Your task to perform on an android device: Go to sound settings Image 0: 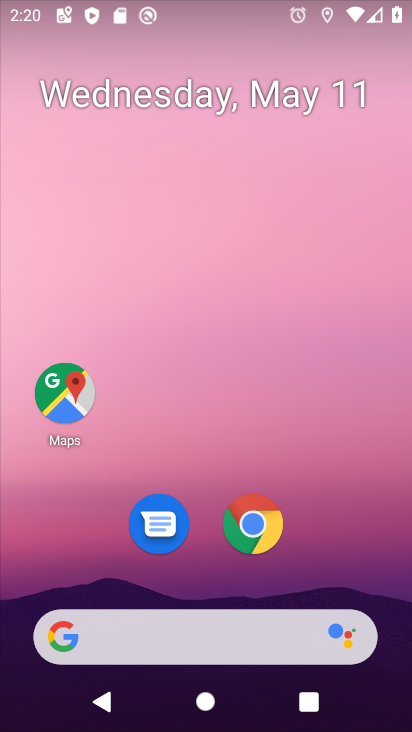
Step 0: drag from (359, 541) to (346, 49)
Your task to perform on an android device: Go to sound settings Image 1: 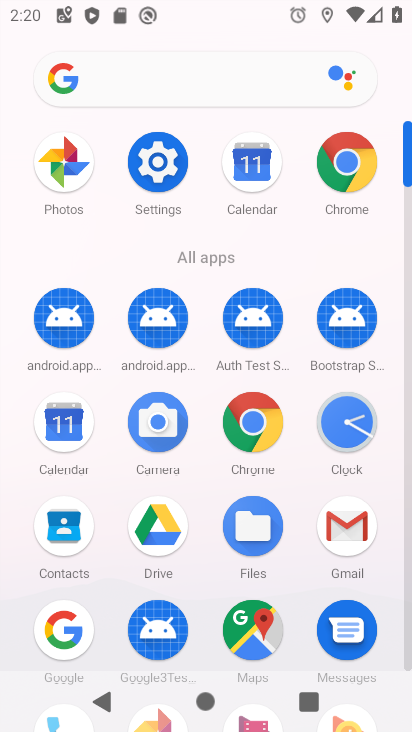
Step 1: click (175, 155)
Your task to perform on an android device: Go to sound settings Image 2: 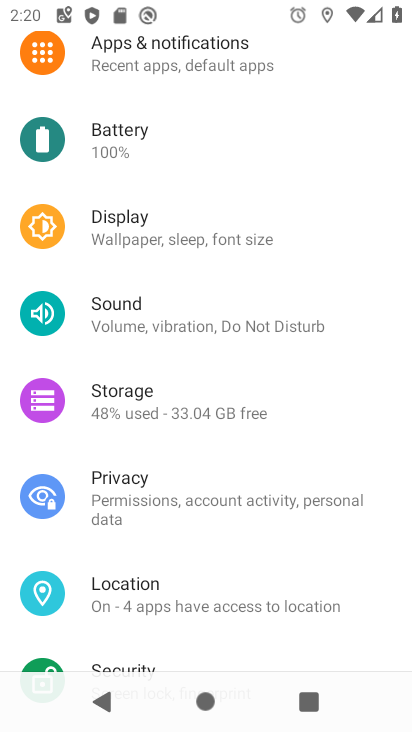
Step 2: click (204, 306)
Your task to perform on an android device: Go to sound settings Image 3: 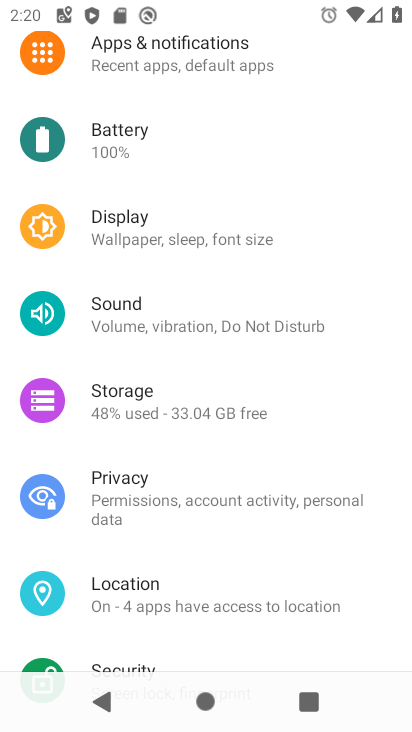
Step 3: click (216, 308)
Your task to perform on an android device: Go to sound settings Image 4: 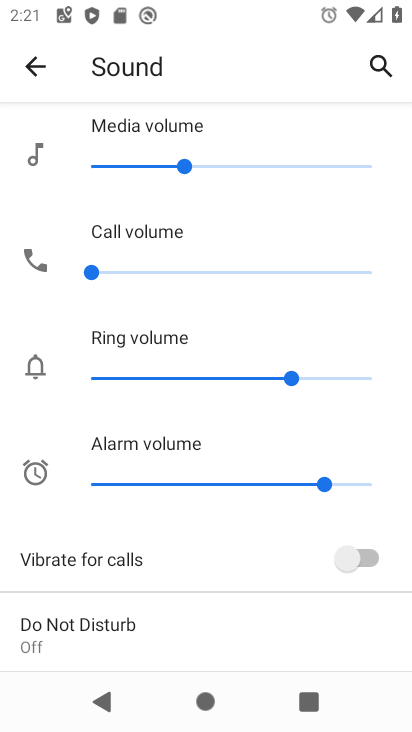
Step 4: task complete